Your task to perform on an android device: Open Wikipedia Image 0: 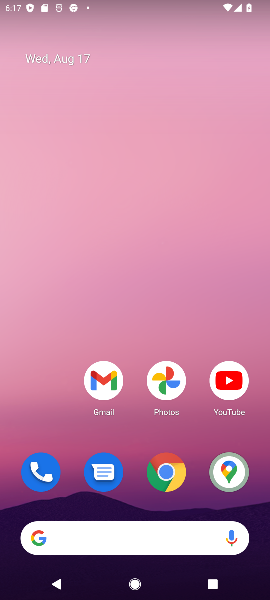
Step 0: click (180, 465)
Your task to perform on an android device: Open Wikipedia Image 1: 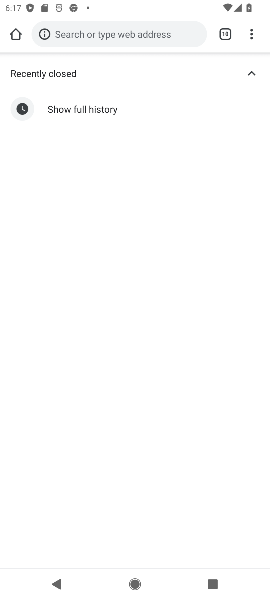
Step 1: click (230, 26)
Your task to perform on an android device: Open Wikipedia Image 2: 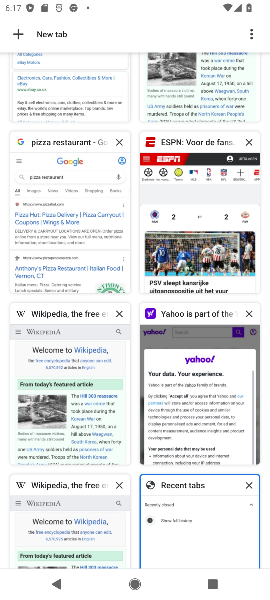
Step 2: click (70, 374)
Your task to perform on an android device: Open Wikipedia Image 3: 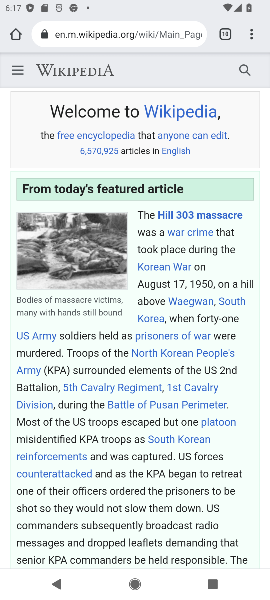
Step 3: task complete